Your task to perform on an android device: manage bookmarks in the chrome app Image 0: 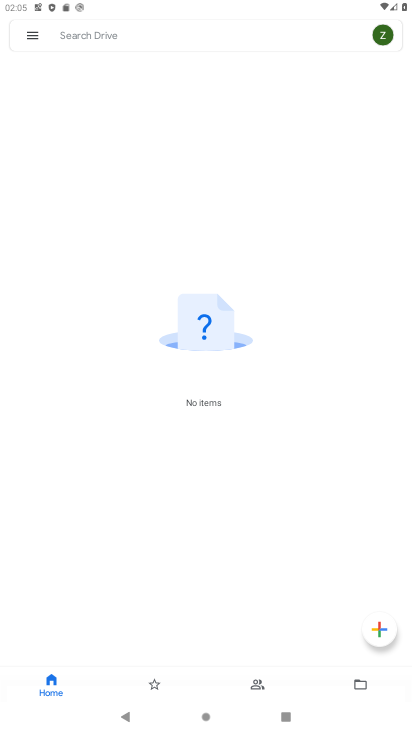
Step 0: press home button
Your task to perform on an android device: manage bookmarks in the chrome app Image 1: 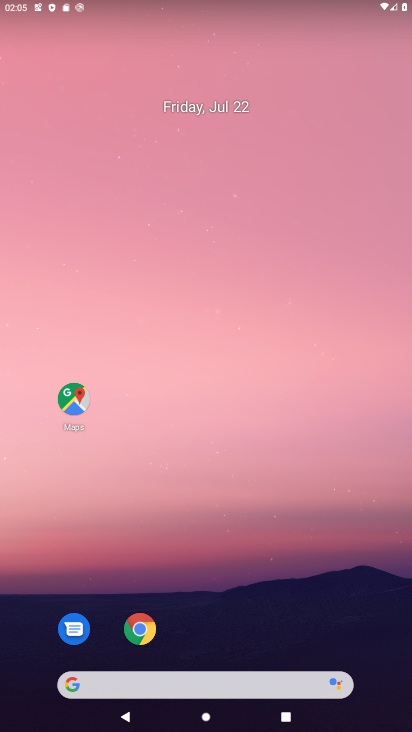
Step 1: click (146, 625)
Your task to perform on an android device: manage bookmarks in the chrome app Image 2: 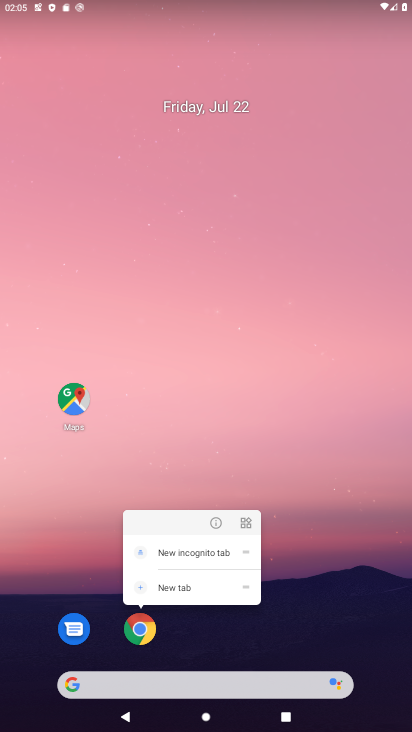
Step 2: click (136, 624)
Your task to perform on an android device: manage bookmarks in the chrome app Image 3: 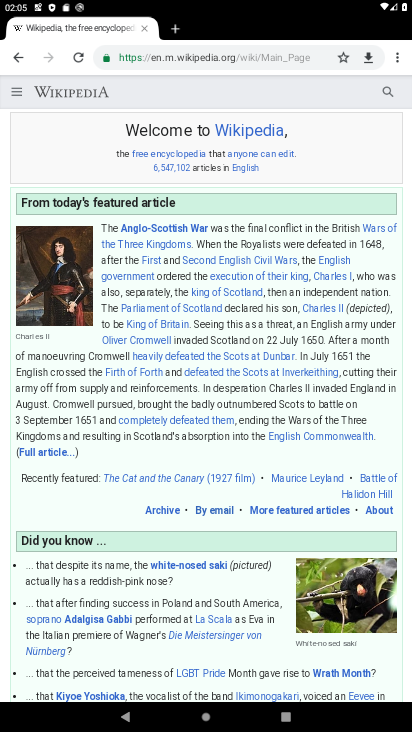
Step 3: click (177, 27)
Your task to perform on an android device: manage bookmarks in the chrome app Image 4: 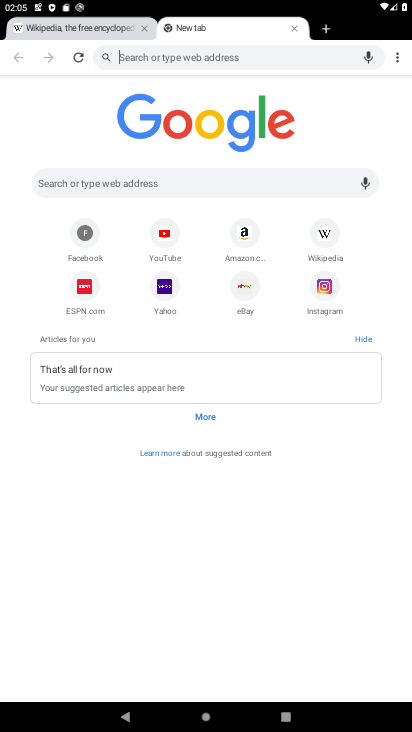
Step 4: click (147, 29)
Your task to perform on an android device: manage bookmarks in the chrome app Image 5: 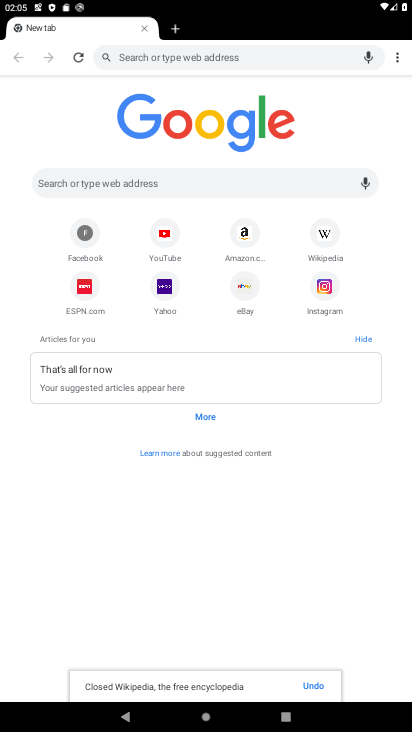
Step 5: click (394, 55)
Your task to perform on an android device: manage bookmarks in the chrome app Image 6: 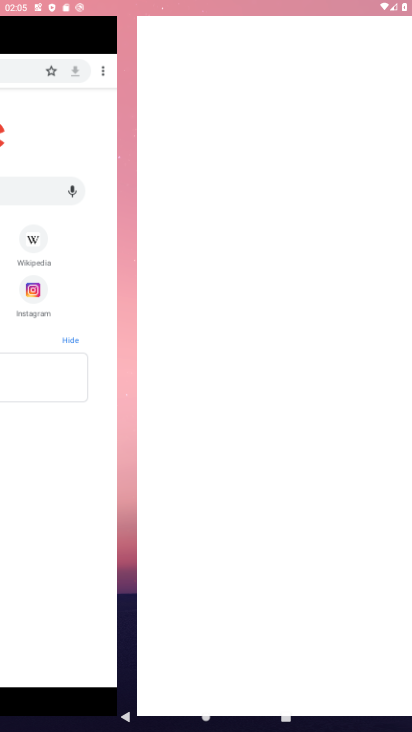
Step 6: click (394, 55)
Your task to perform on an android device: manage bookmarks in the chrome app Image 7: 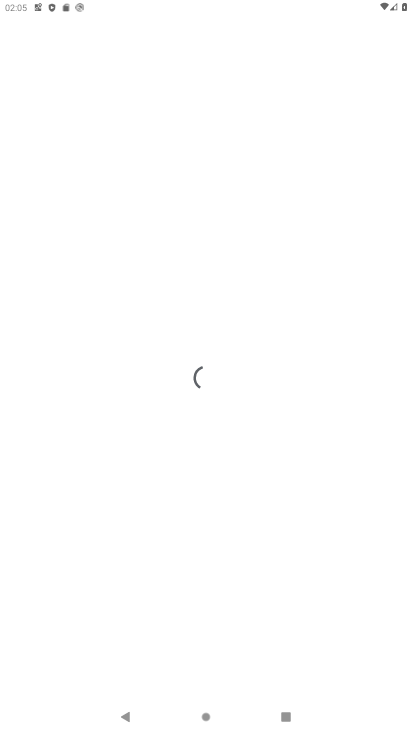
Step 7: press back button
Your task to perform on an android device: manage bookmarks in the chrome app Image 8: 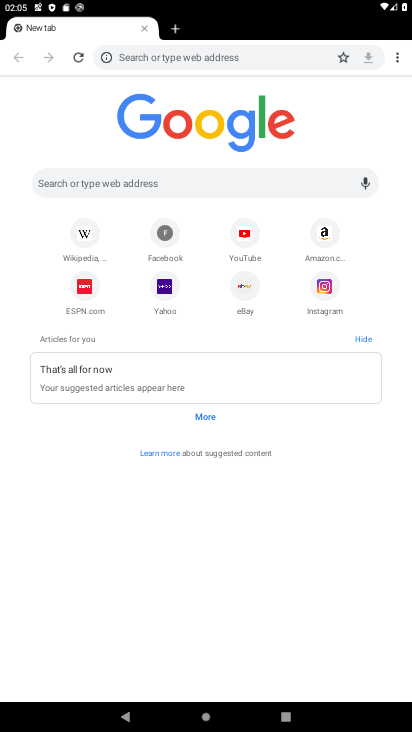
Step 8: click (392, 63)
Your task to perform on an android device: manage bookmarks in the chrome app Image 9: 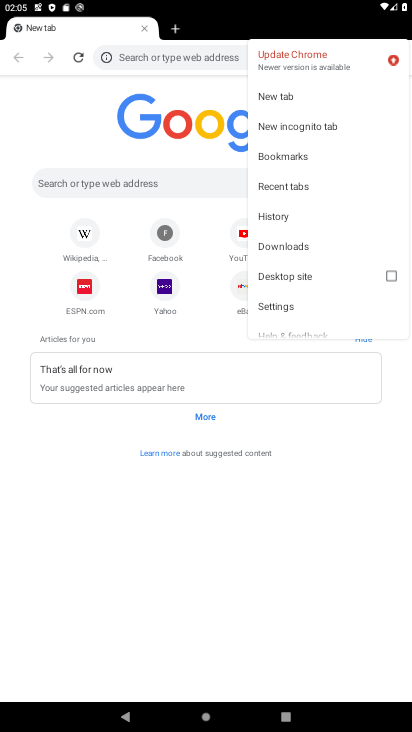
Step 9: click (303, 161)
Your task to perform on an android device: manage bookmarks in the chrome app Image 10: 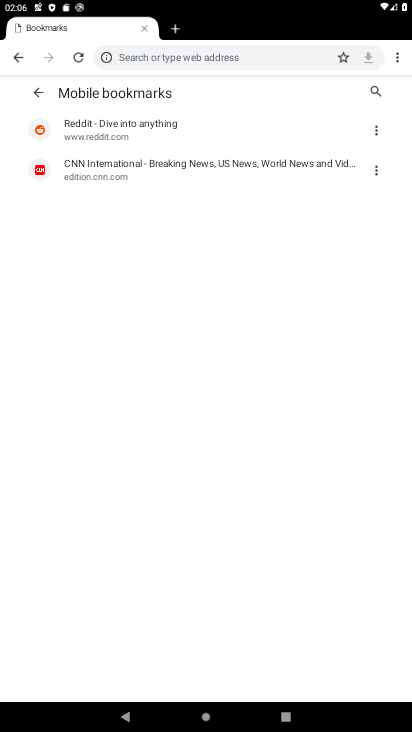
Step 10: click (377, 131)
Your task to perform on an android device: manage bookmarks in the chrome app Image 11: 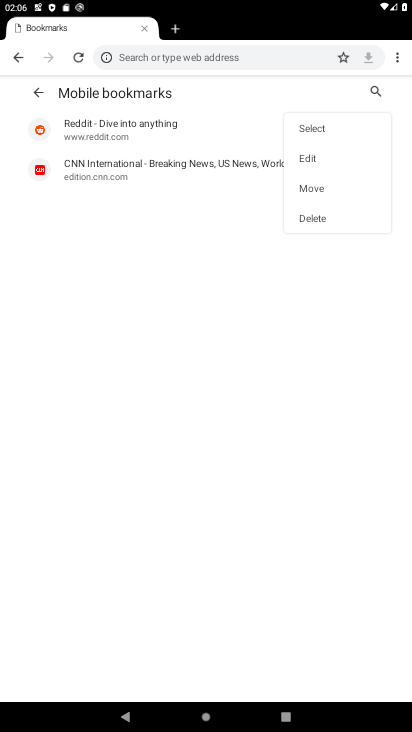
Step 11: click (330, 224)
Your task to perform on an android device: manage bookmarks in the chrome app Image 12: 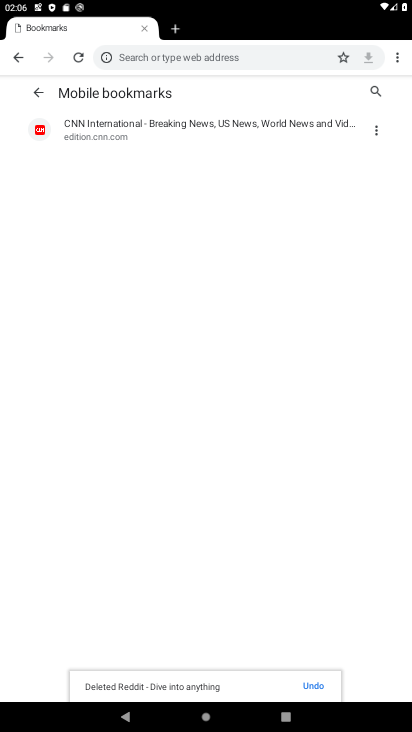
Step 12: task complete